Your task to perform on an android device: open a bookmark in the chrome app Image 0: 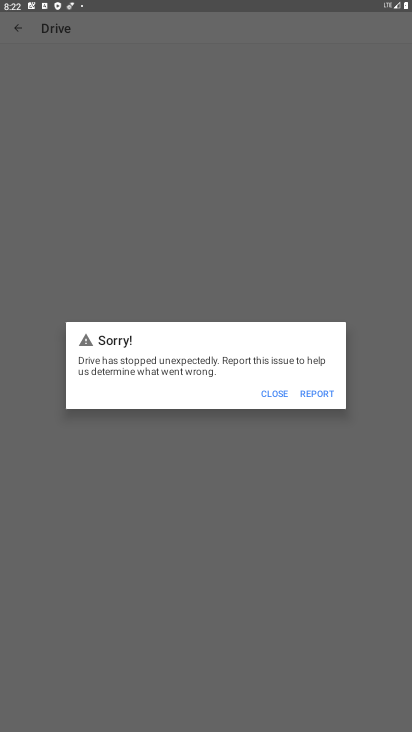
Step 0: press home button
Your task to perform on an android device: open a bookmark in the chrome app Image 1: 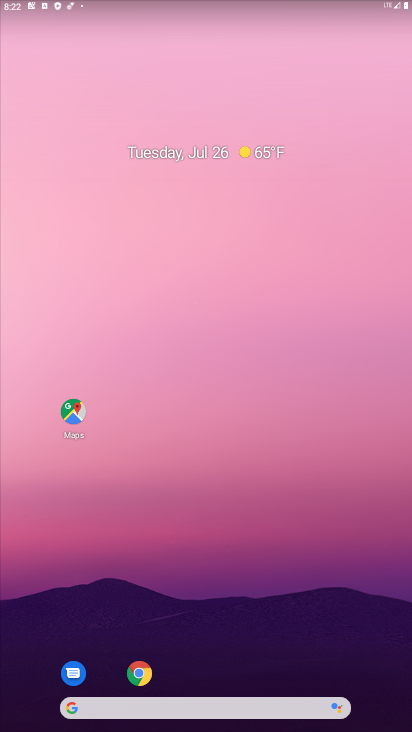
Step 1: click (145, 671)
Your task to perform on an android device: open a bookmark in the chrome app Image 2: 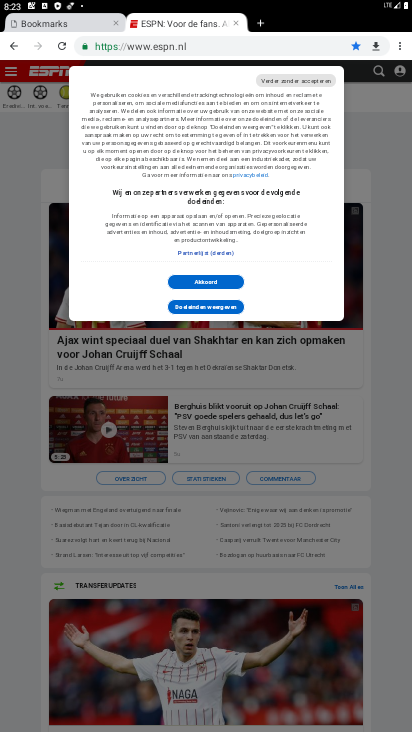
Step 2: click (397, 46)
Your task to perform on an android device: open a bookmark in the chrome app Image 3: 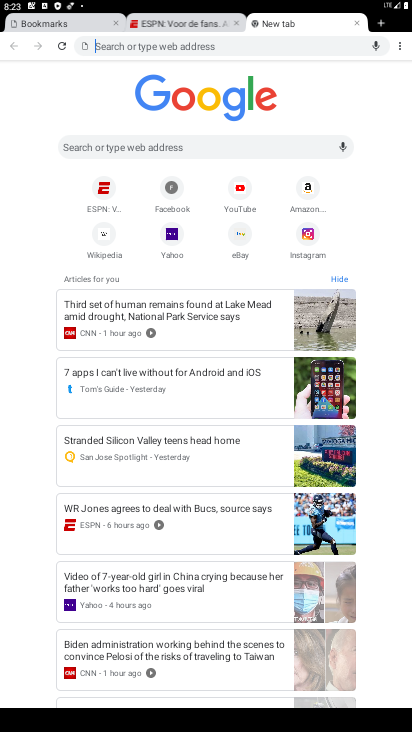
Step 3: click (397, 46)
Your task to perform on an android device: open a bookmark in the chrome app Image 4: 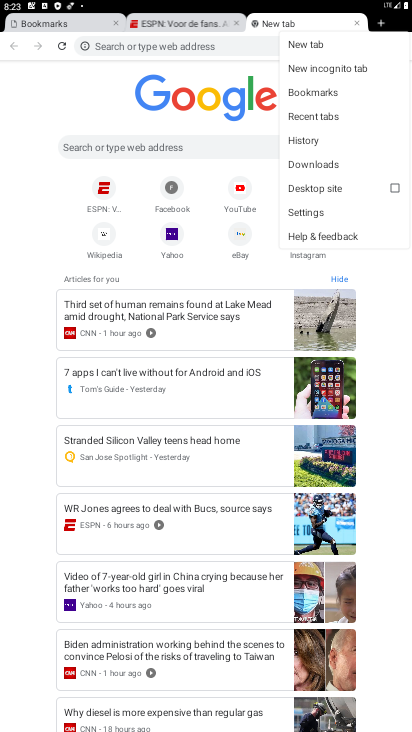
Step 4: click (349, 87)
Your task to perform on an android device: open a bookmark in the chrome app Image 5: 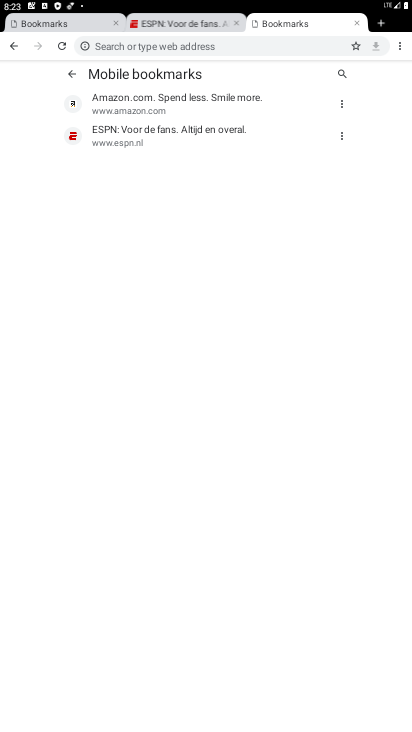
Step 5: click (210, 111)
Your task to perform on an android device: open a bookmark in the chrome app Image 6: 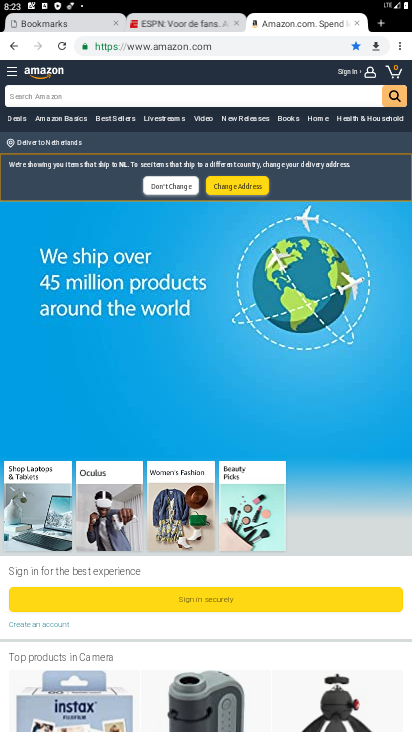
Step 6: task complete